Your task to perform on an android device: turn on priority inbox in the gmail app Image 0: 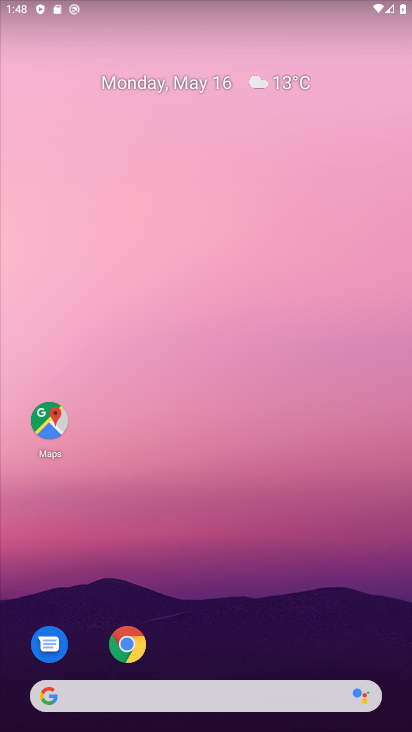
Step 0: drag from (195, 680) to (361, 58)
Your task to perform on an android device: turn on priority inbox in the gmail app Image 1: 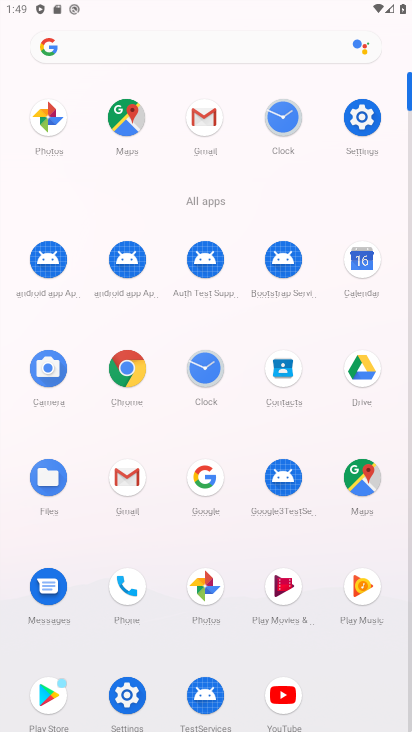
Step 1: click (203, 120)
Your task to perform on an android device: turn on priority inbox in the gmail app Image 2: 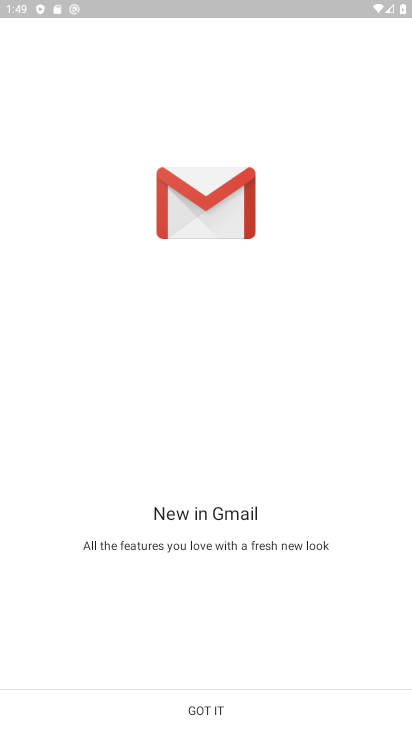
Step 2: click (200, 703)
Your task to perform on an android device: turn on priority inbox in the gmail app Image 3: 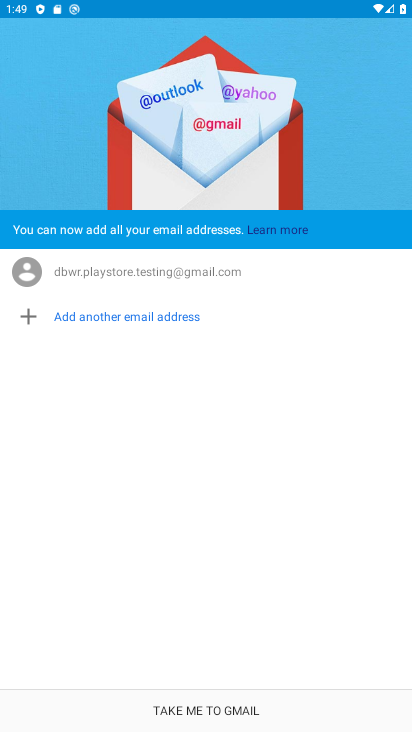
Step 3: click (200, 709)
Your task to perform on an android device: turn on priority inbox in the gmail app Image 4: 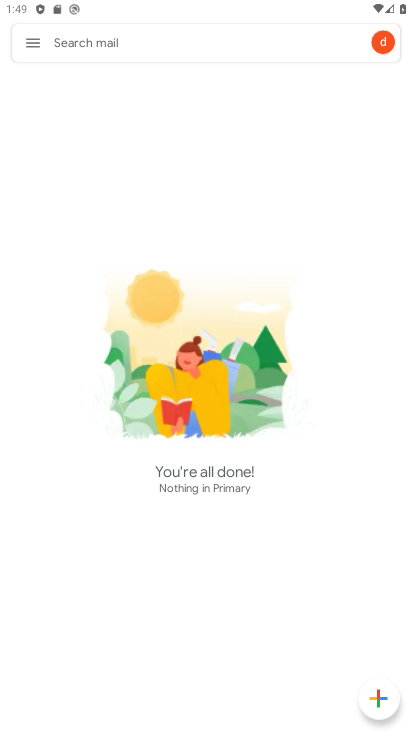
Step 4: click (34, 34)
Your task to perform on an android device: turn on priority inbox in the gmail app Image 5: 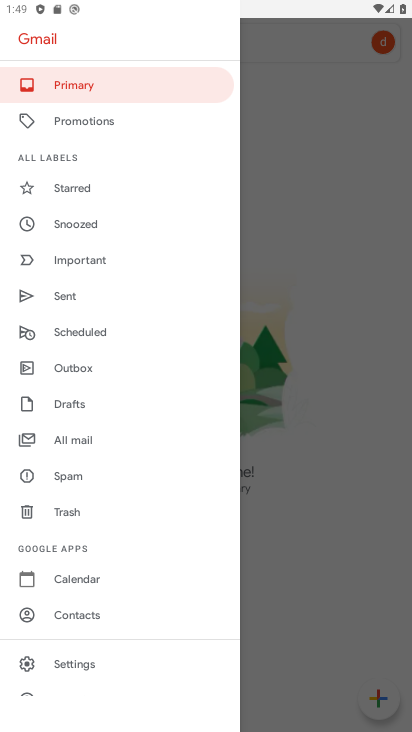
Step 5: click (67, 664)
Your task to perform on an android device: turn on priority inbox in the gmail app Image 6: 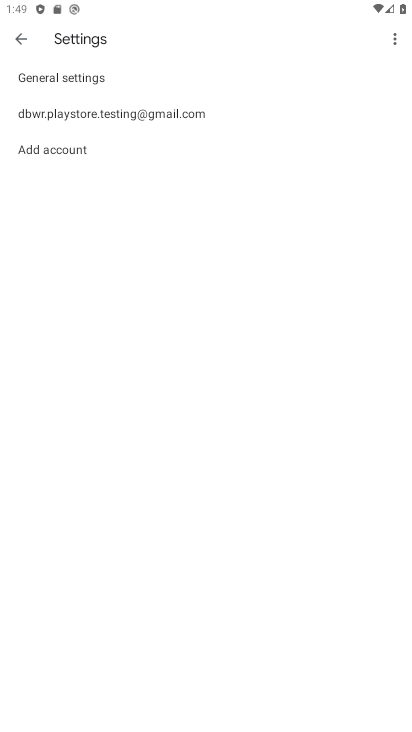
Step 6: click (46, 110)
Your task to perform on an android device: turn on priority inbox in the gmail app Image 7: 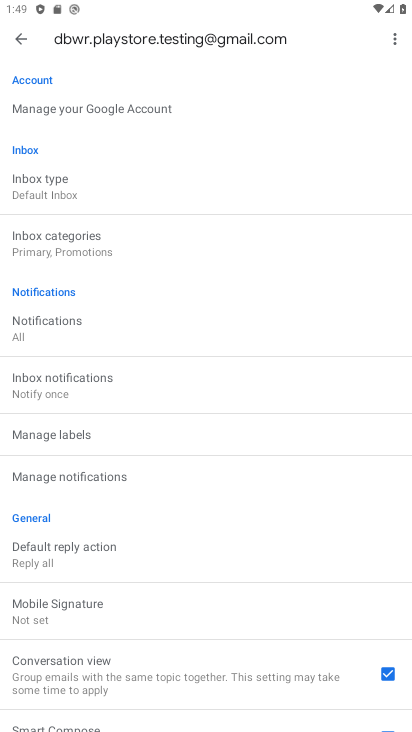
Step 7: click (45, 198)
Your task to perform on an android device: turn on priority inbox in the gmail app Image 8: 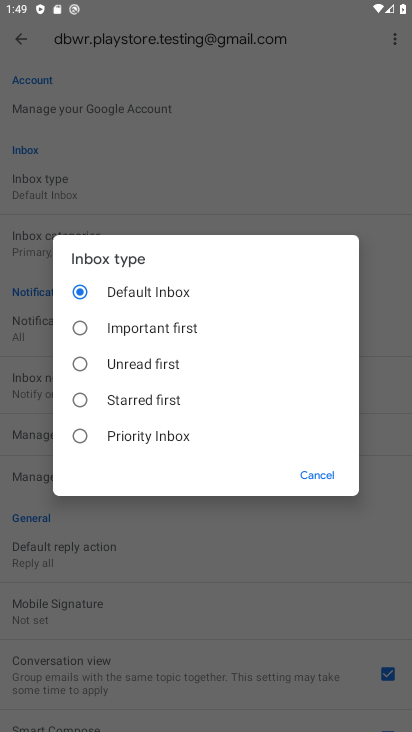
Step 8: click (113, 436)
Your task to perform on an android device: turn on priority inbox in the gmail app Image 9: 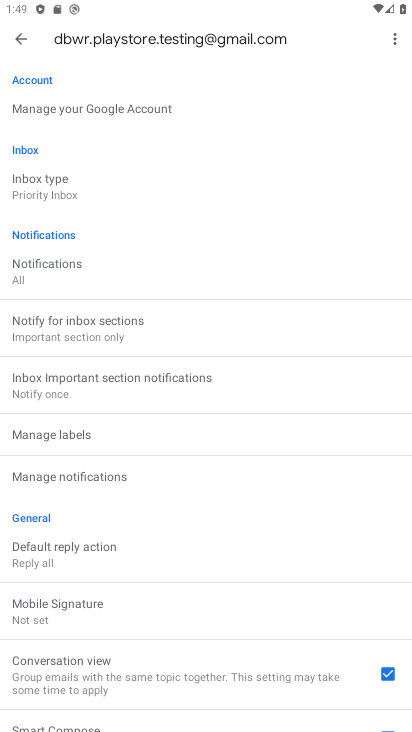
Step 9: task complete